Your task to perform on an android device: visit the assistant section in the google photos Image 0: 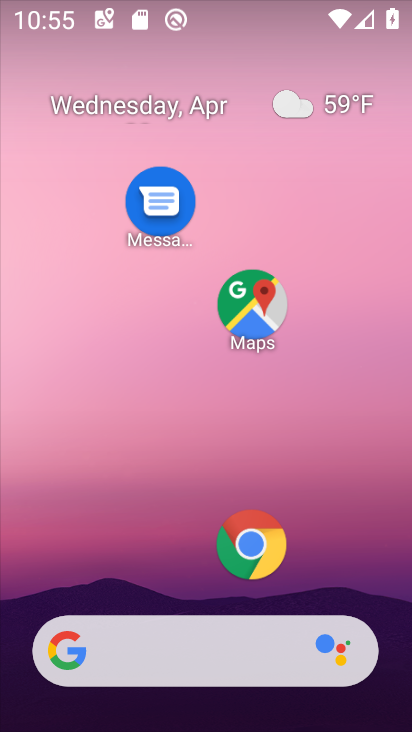
Step 0: drag from (207, 440) to (207, 138)
Your task to perform on an android device: visit the assistant section in the google photos Image 1: 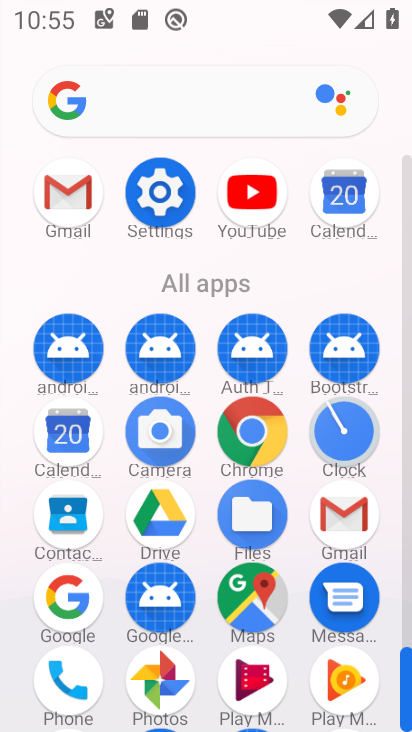
Step 1: click (151, 665)
Your task to perform on an android device: visit the assistant section in the google photos Image 2: 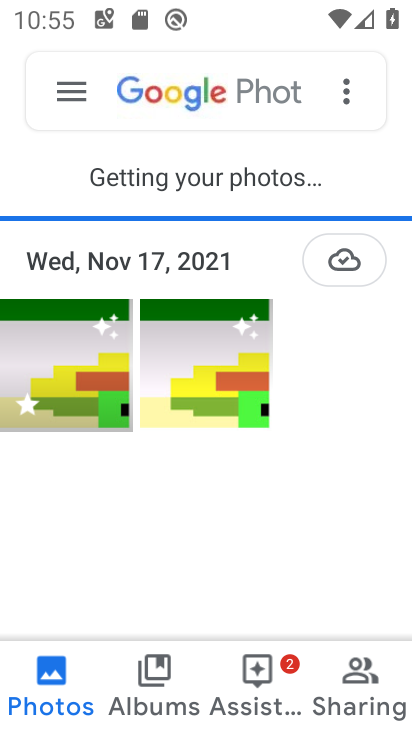
Step 2: click (246, 655)
Your task to perform on an android device: visit the assistant section in the google photos Image 3: 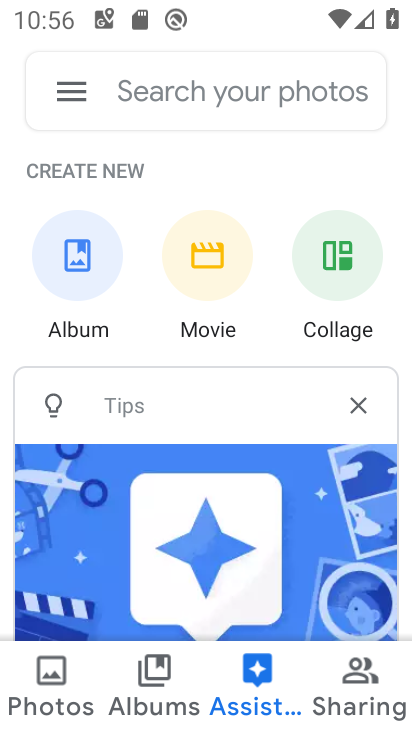
Step 3: task complete